Your task to perform on an android device: Open Chrome and go to settings Image 0: 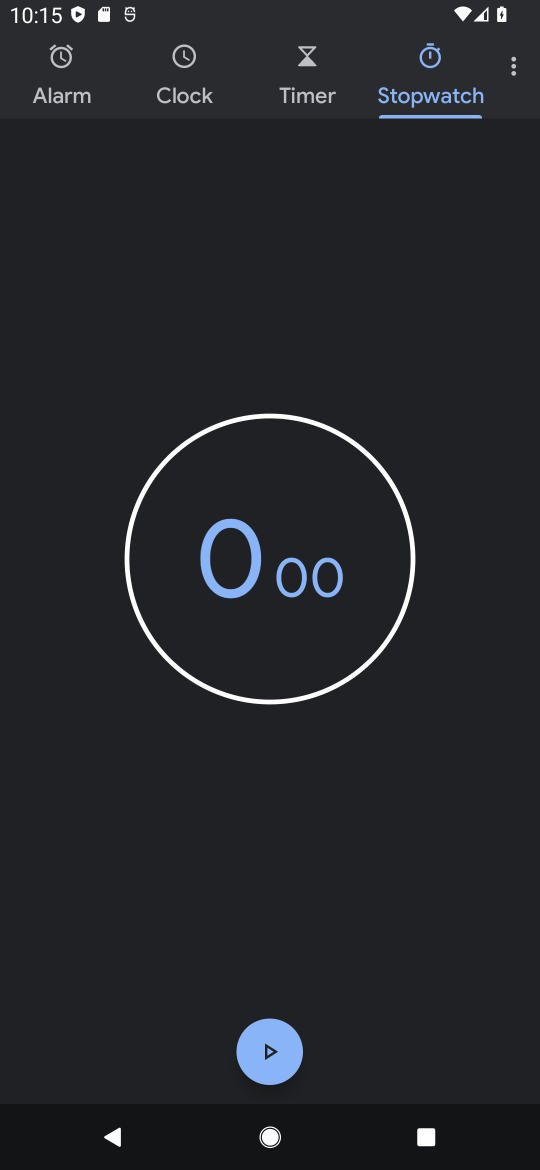
Step 0: press home button
Your task to perform on an android device: Open Chrome and go to settings Image 1: 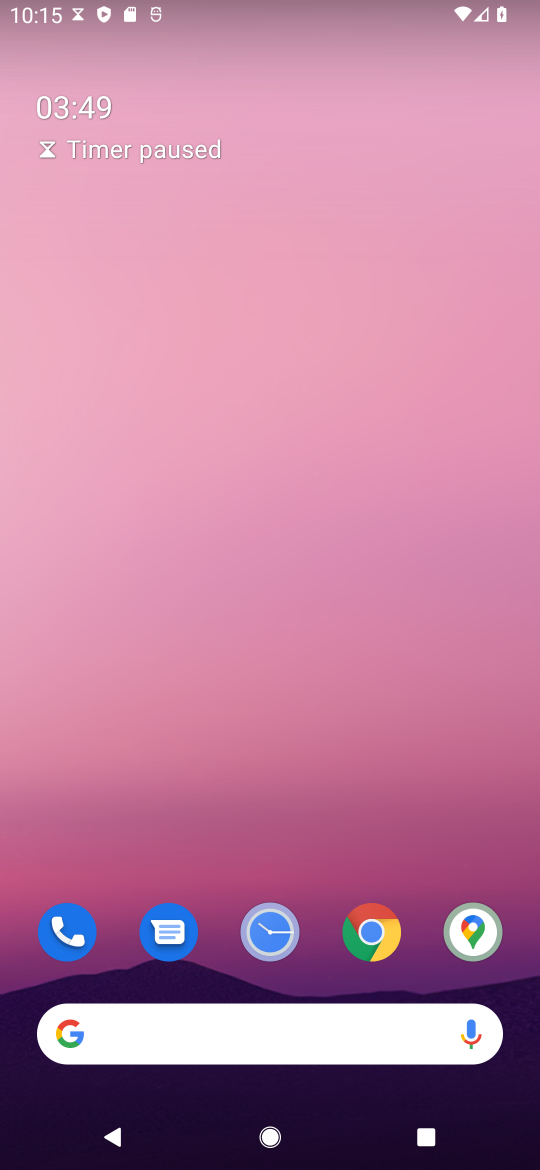
Step 1: click (370, 931)
Your task to perform on an android device: Open Chrome and go to settings Image 2: 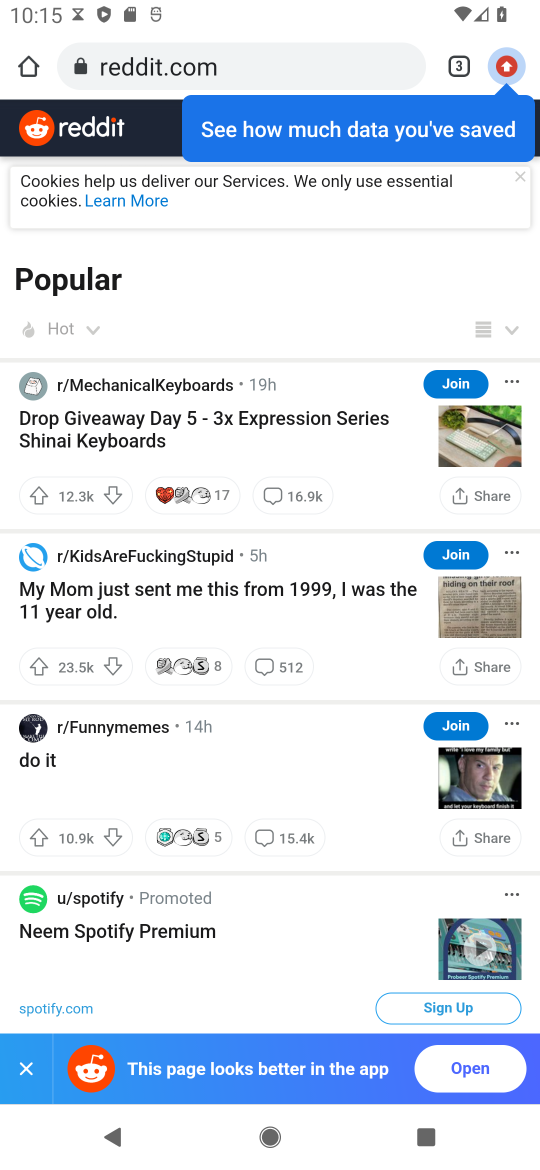
Step 2: click (508, 65)
Your task to perform on an android device: Open Chrome and go to settings Image 3: 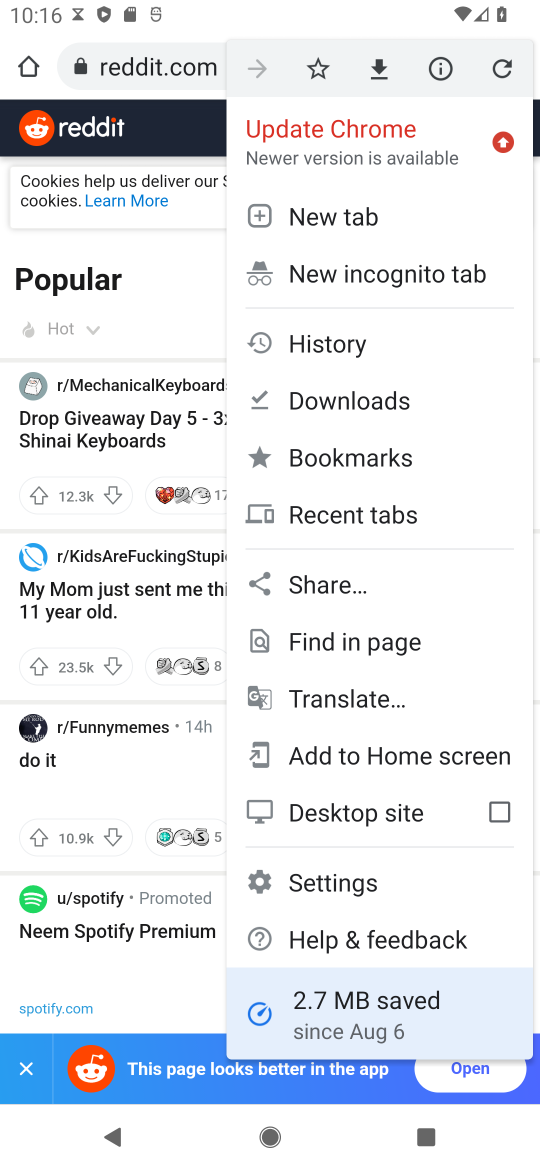
Step 3: click (347, 880)
Your task to perform on an android device: Open Chrome and go to settings Image 4: 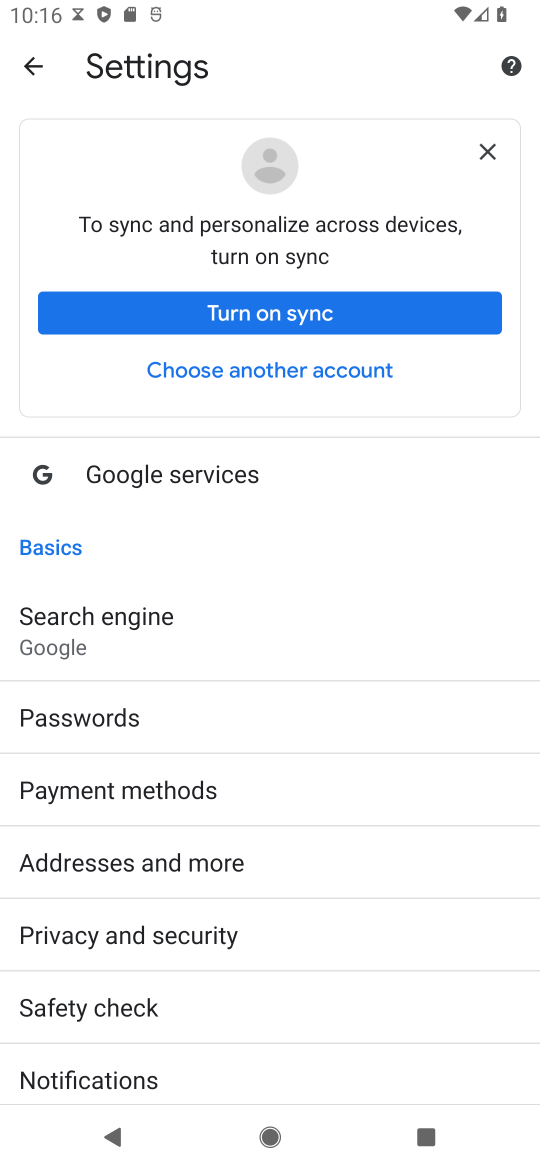
Step 4: task complete